Your task to perform on an android device: Open sound settings Image 0: 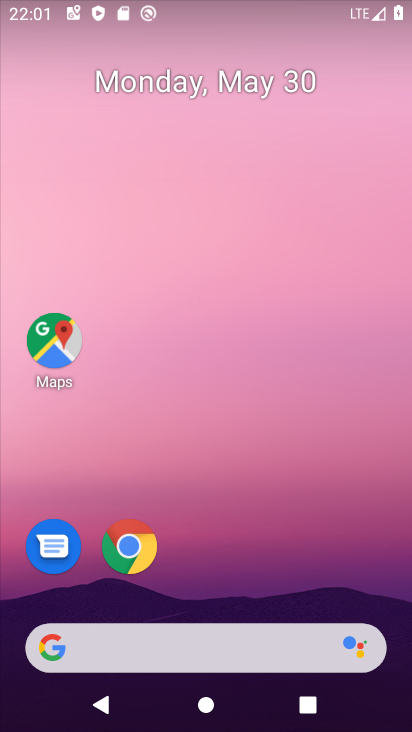
Step 0: drag from (364, 563) to (327, 221)
Your task to perform on an android device: Open sound settings Image 1: 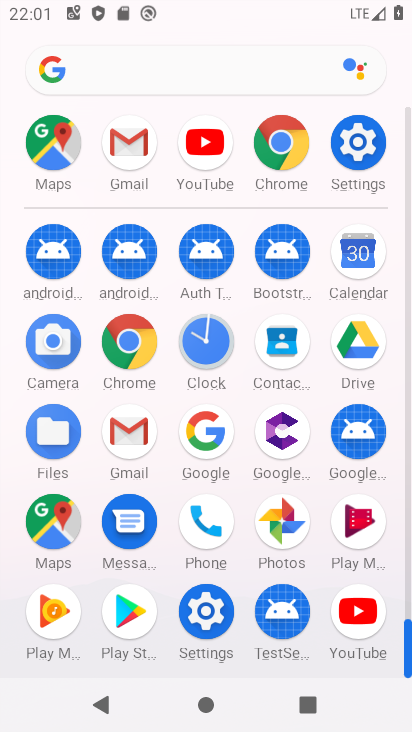
Step 1: click (350, 182)
Your task to perform on an android device: Open sound settings Image 2: 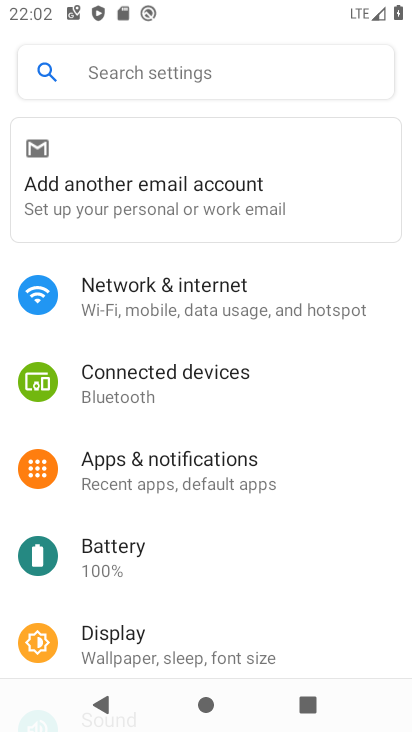
Step 2: drag from (212, 550) to (257, 203)
Your task to perform on an android device: Open sound settings Image 3: 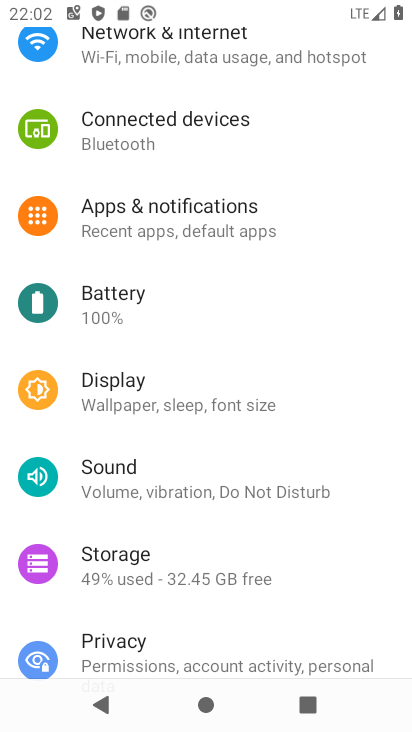
Step 3: click (193, 481)
Your task to perform on an android device: Open sound settings Image 4: 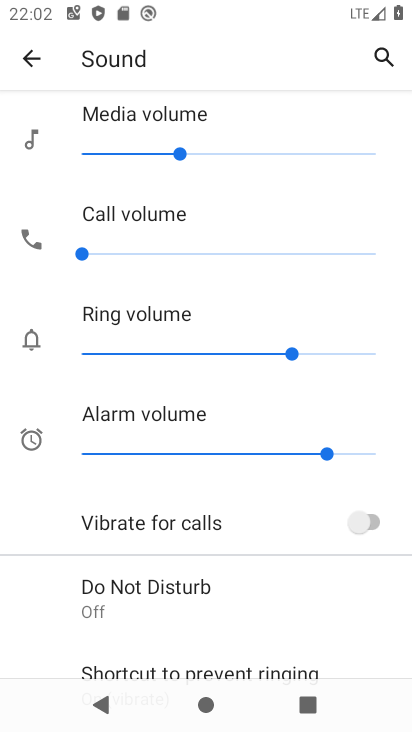
Step 4: task complete